Your task to perform on an android device: move a message to another label in the gmail app Image 0: 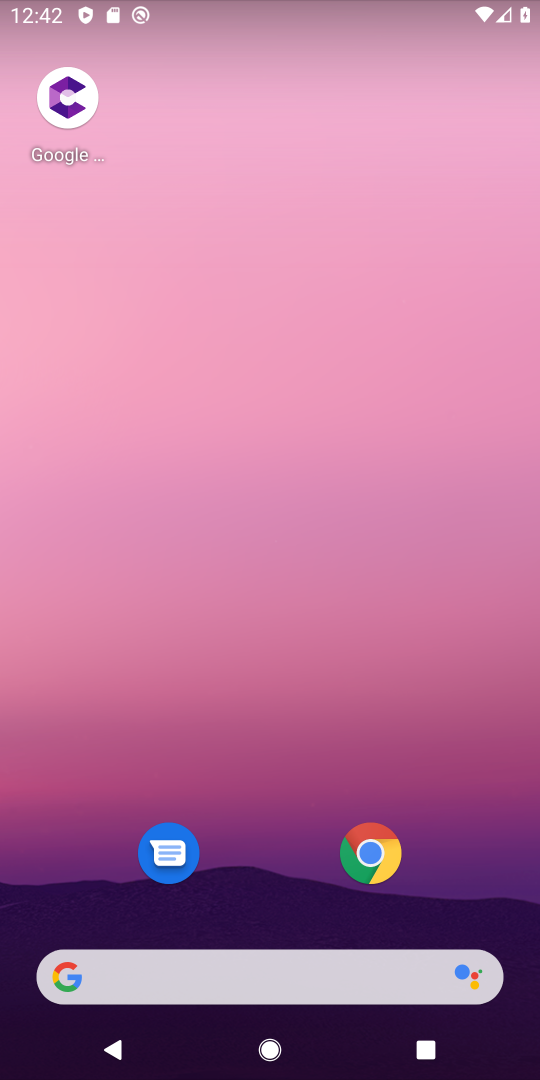
Step 0: drag from (247, 703) to (227, 141)
Your task to perform on an android device: move a message to another label in the gmail app Image 1: 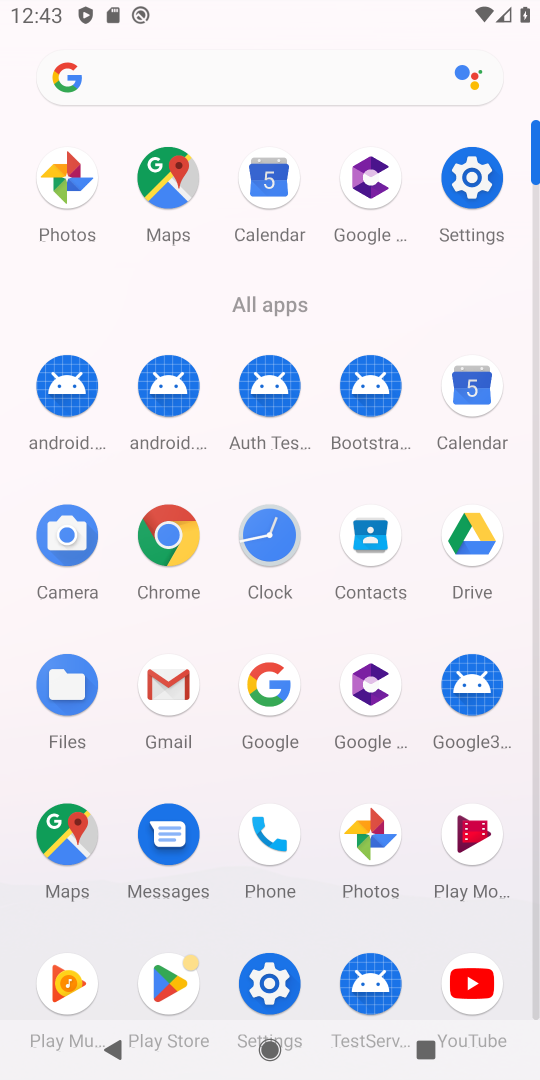
Step 1: click (169, 690)
Your task to perform on an android device: move a message to another label in the gmail app Image 2: 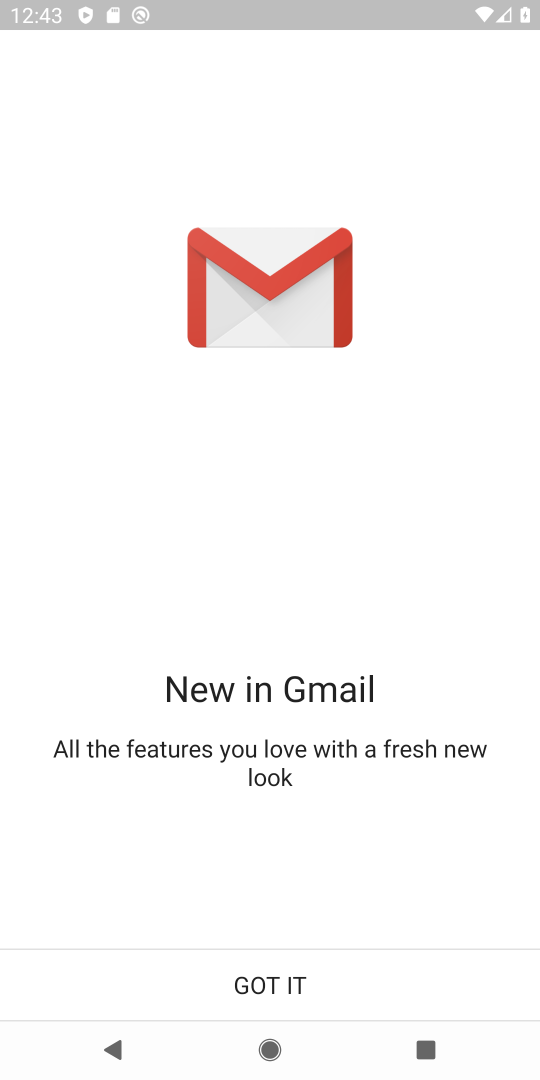
Step 2: click (271, 956)
Your task to perform on an android device: move a message to another label in the gmail app Image 3: 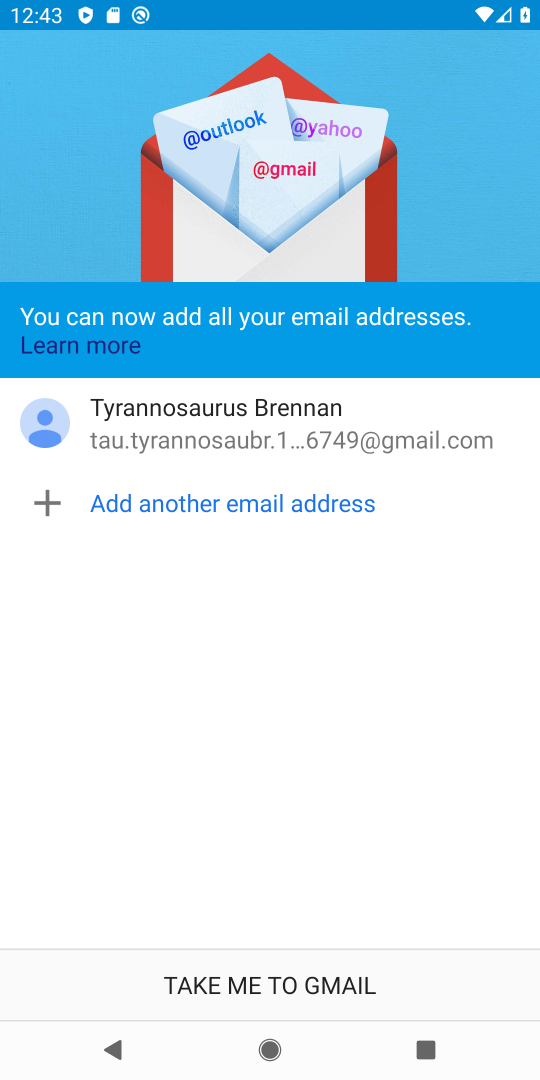
Step 3: click (271, 956)
Your task to perform on an android device: move a message to another label in the gmail app Image 4: 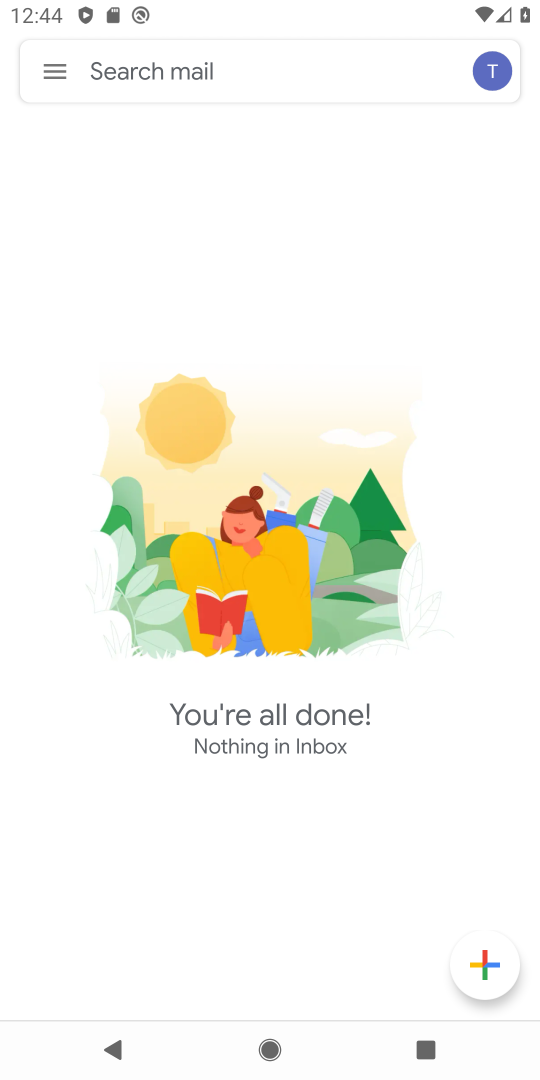
Step 4: click (51, 74)
Your task to perform on an android device: move a message to another label in the gmail app Image 5: 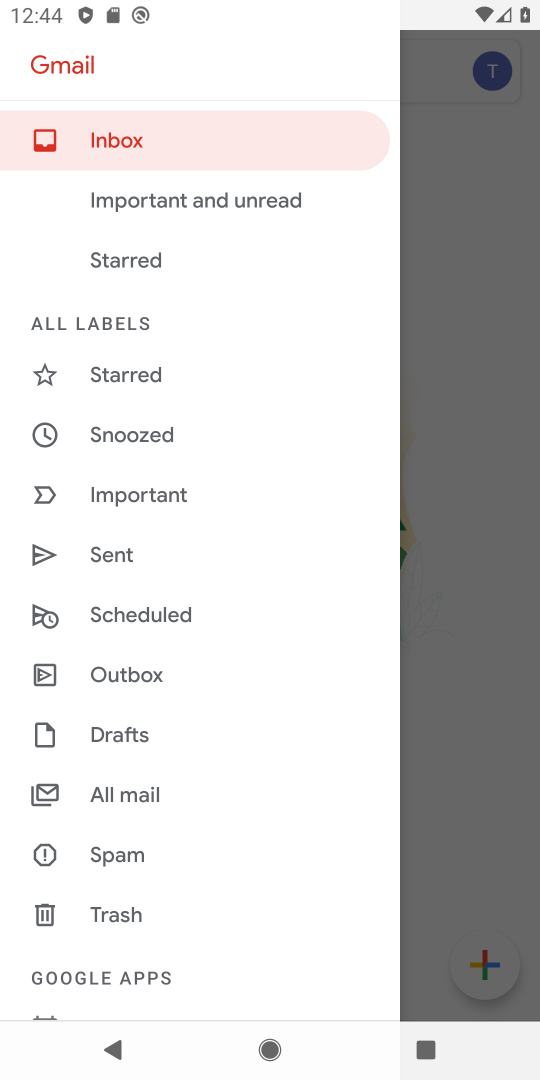
Step 5: drag from (121, 786) to (181, 404)
Your task to perform on an android device: move a message to another label in the gmail app Image 6: 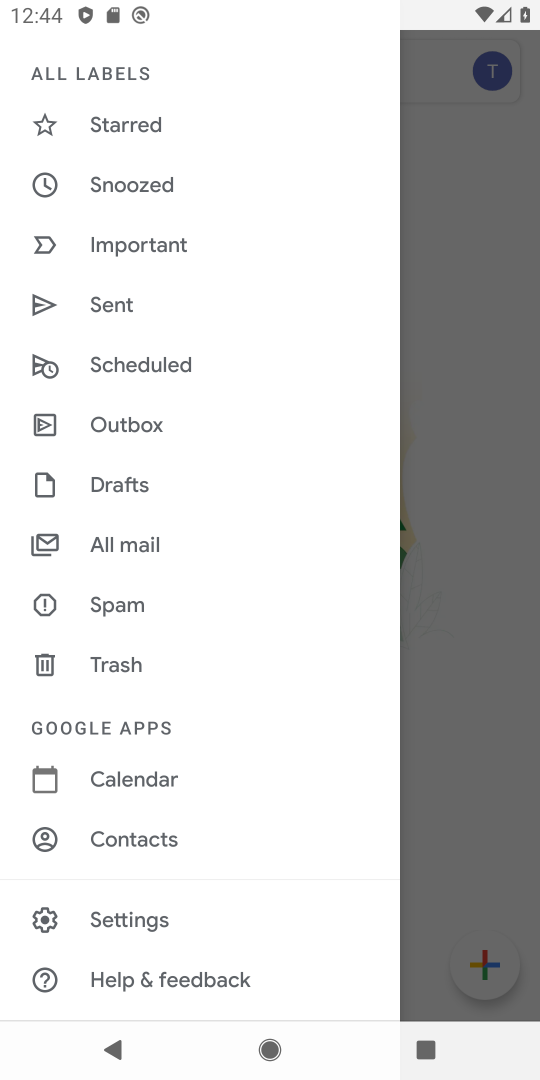
Step 6: click (124, 541)
Your task to perform on an android device: move a message to another label in the gmail app Image 7: 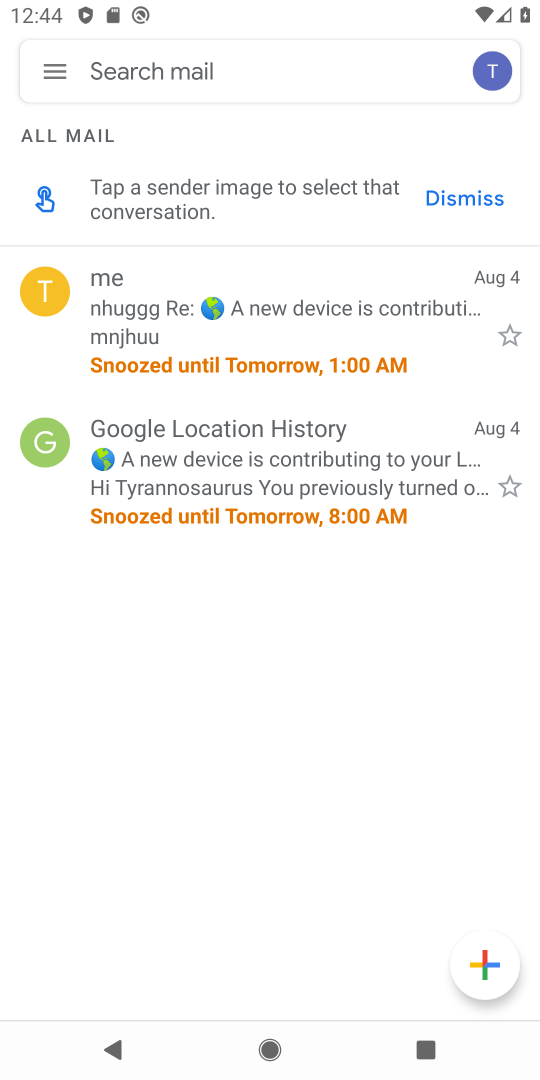
Step 7: click (363, 327)
Your task to perform on an android device: move a message to another label in the gmail app Image 8: 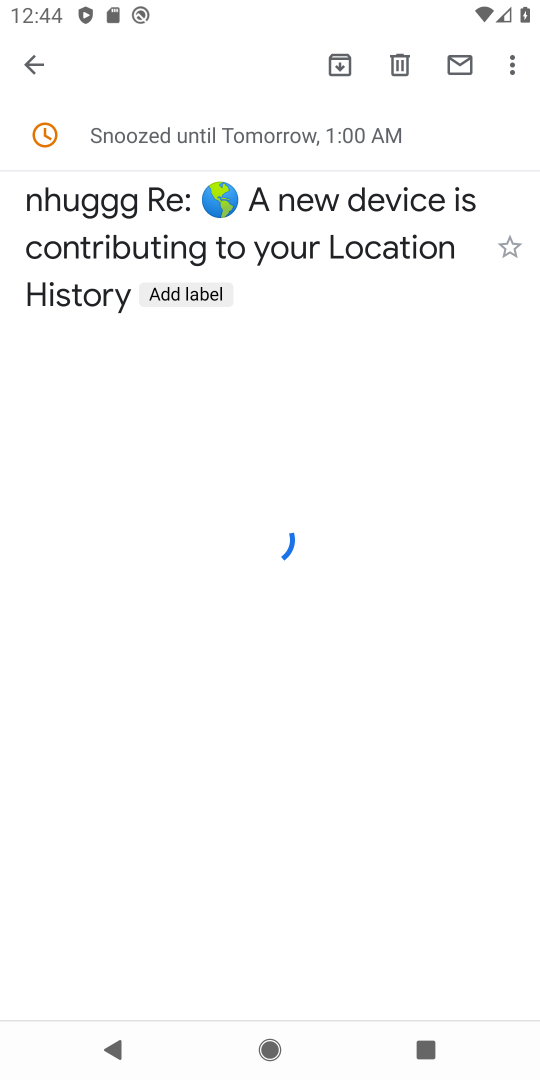
Step 8: click (517, 66)
Your task to perform on an android device: move a message to another label in the gmail app Image 9: 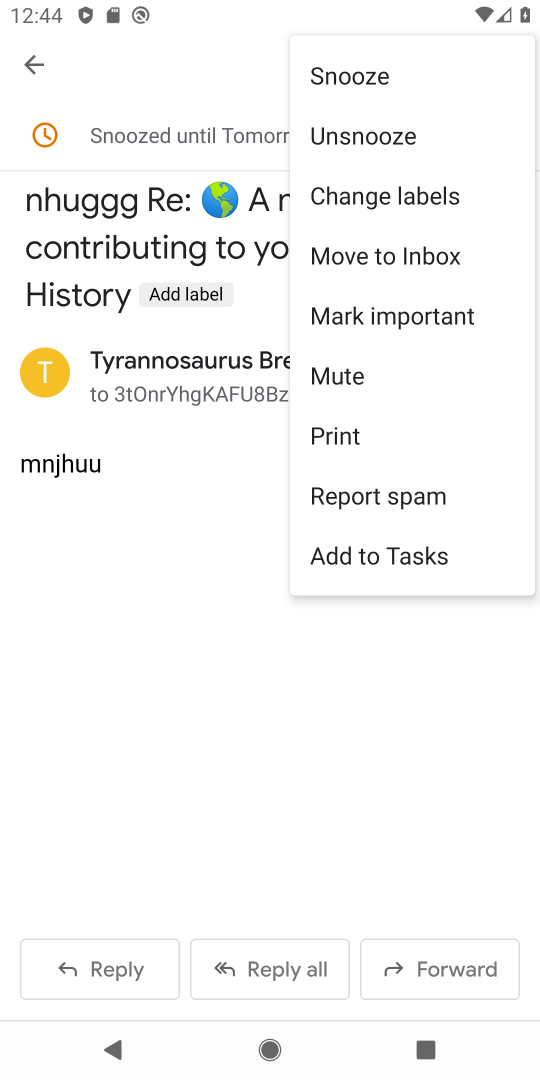
Step 9: click (397, 200)
Your task to perform on an android device: move a message to another label in the gmail app Image 10: 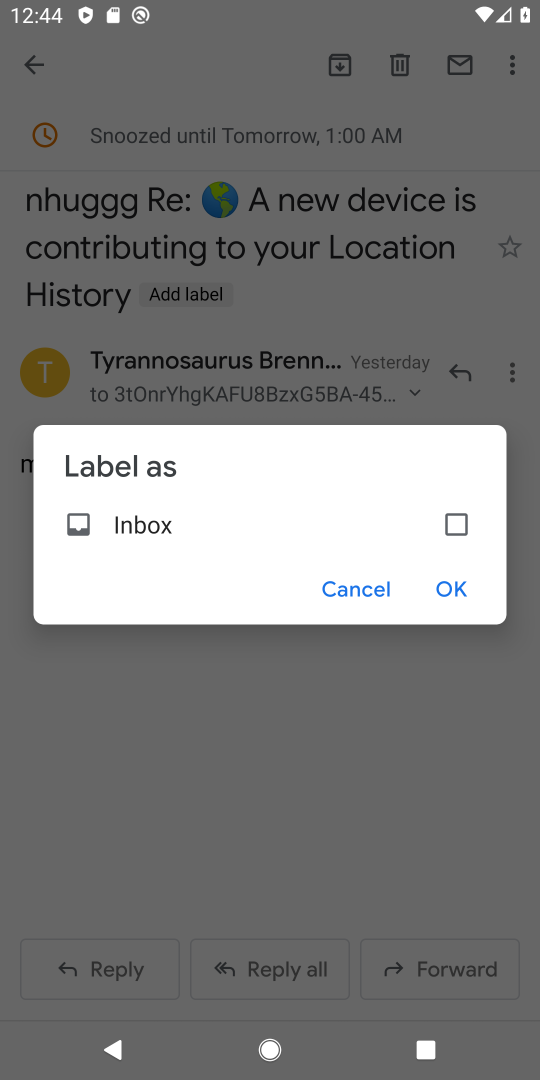
Step 10: click (454, 531)
Your task to perform on an android device: move a message to another label in the gmail app Image 11: 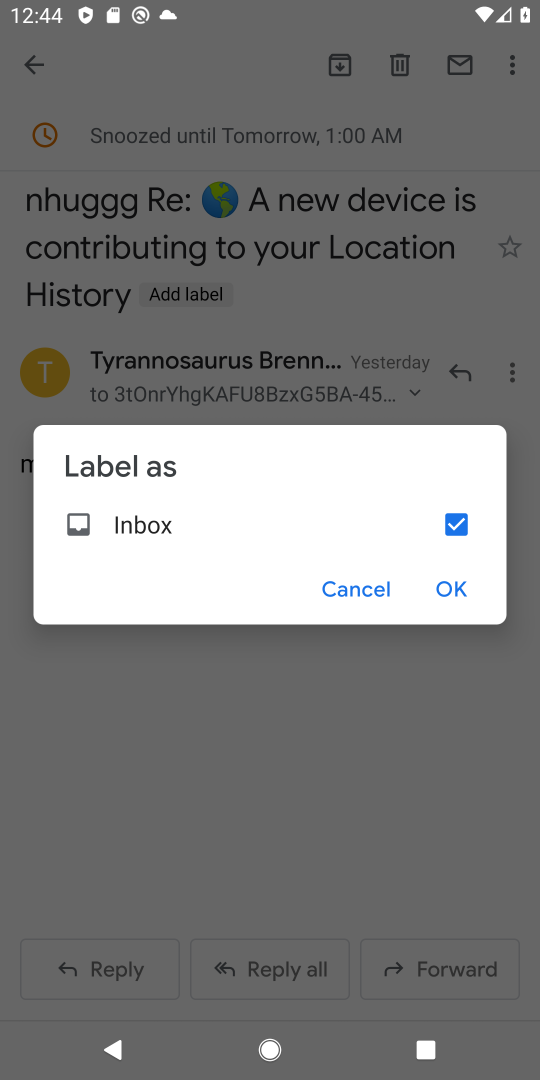
Step 11: click (454, 592)
Your task to perform on an android device: move a message to another label in the gmail app Image 12: 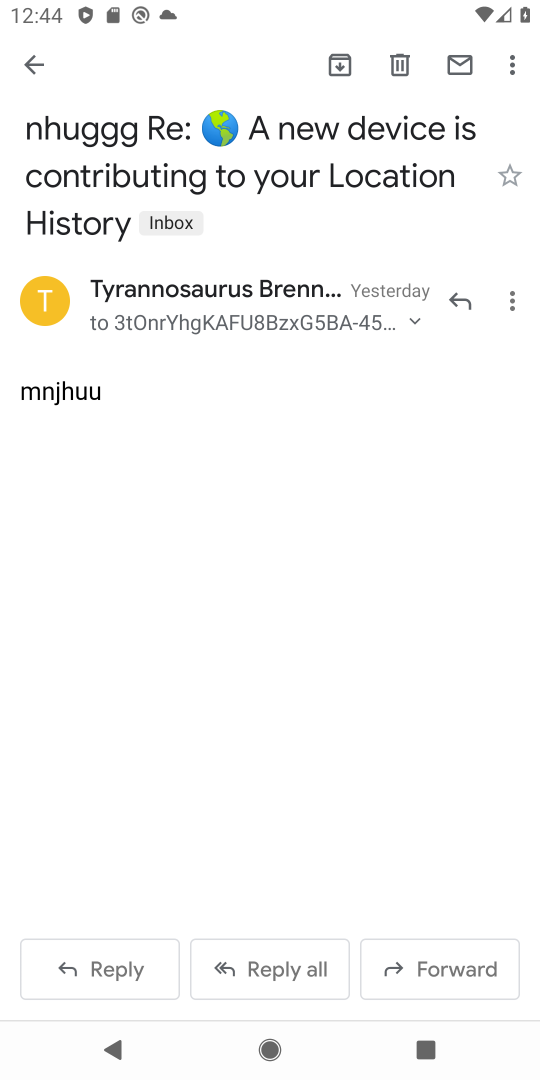
Step 12: task complete